Your task to perform on an android device: Go to settings Image 0: 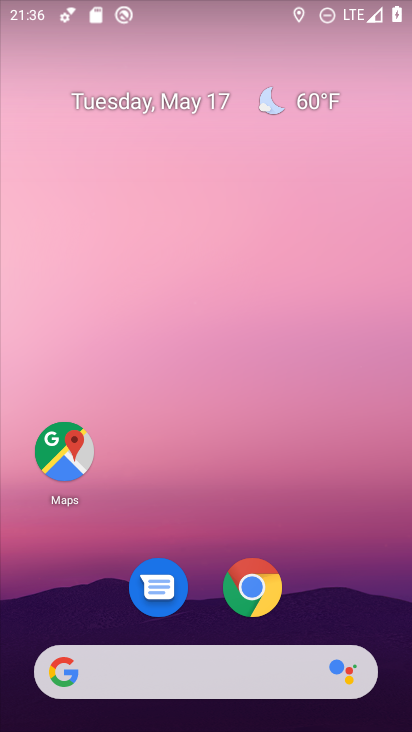
Step 0: drag from (175, 455) to (98, 190)
Your task to perform on an android device: Go to settings Image 1: 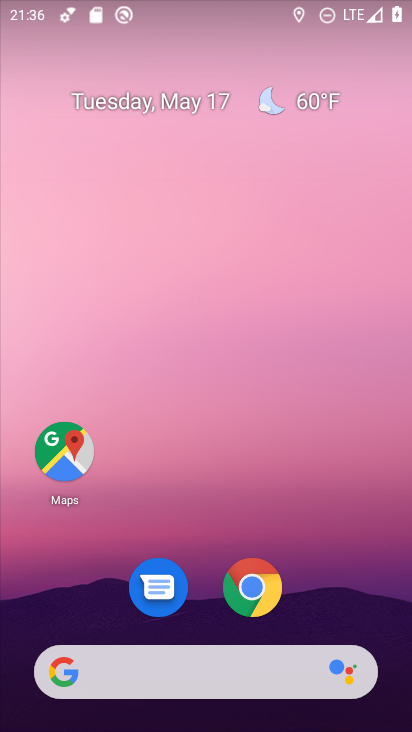
Step 1: drag from (225, 428) to (116, 86)
Your task to perform on an android device: Go to settings Image 2: 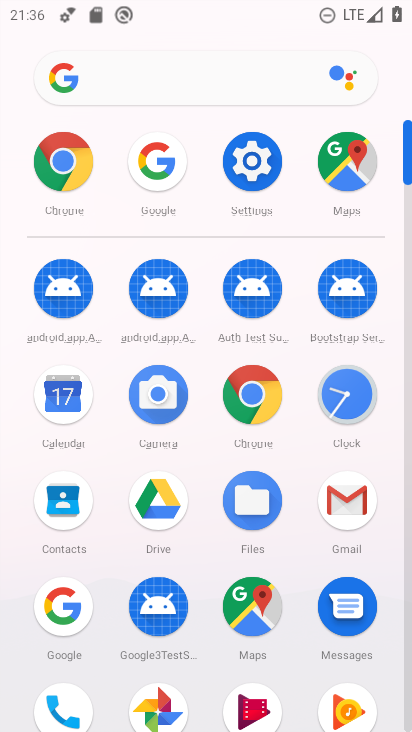
Step 2: click (240, 182)
Your task to perform on an android device: Go to settings Image 3: 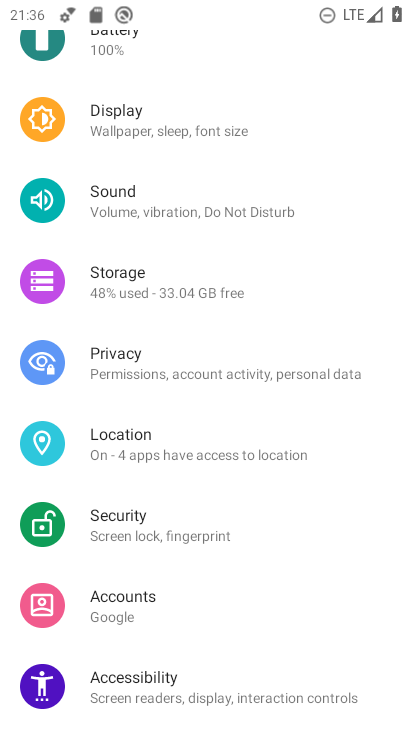
Step 3: task complete